Your task to perform on an android device: uninstall "DoorDash - Dasher" Image 0: 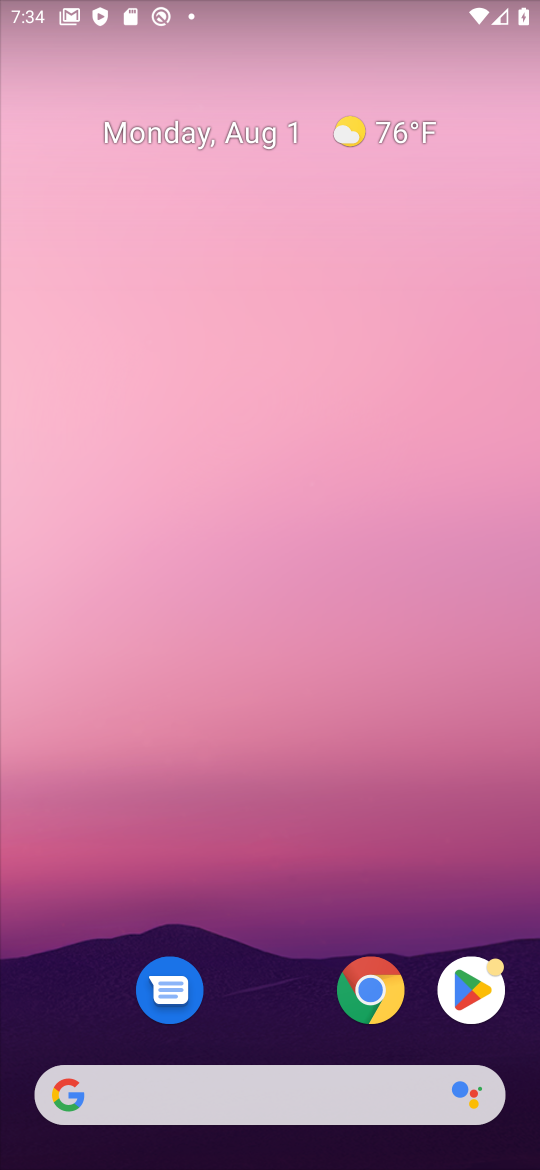
Step 0: press home button
Your task to perform on an android device: uninstall "DoorDash - Dasher" Image 1: 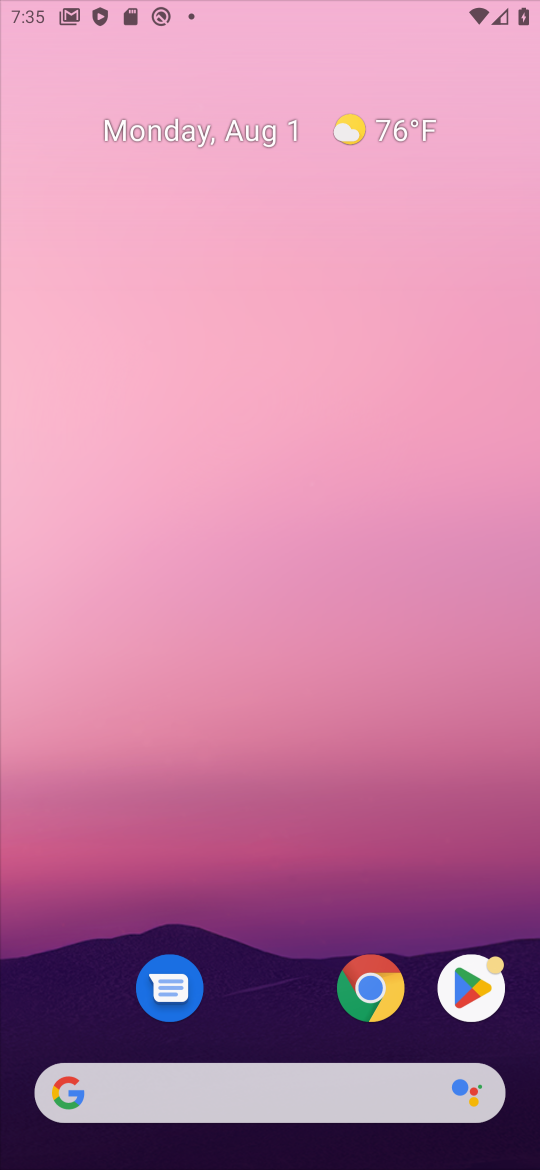
Step 1: click (463, 996)
Your task to perform on an android device: uninstall "DoorDash - Dasher" Image 2: 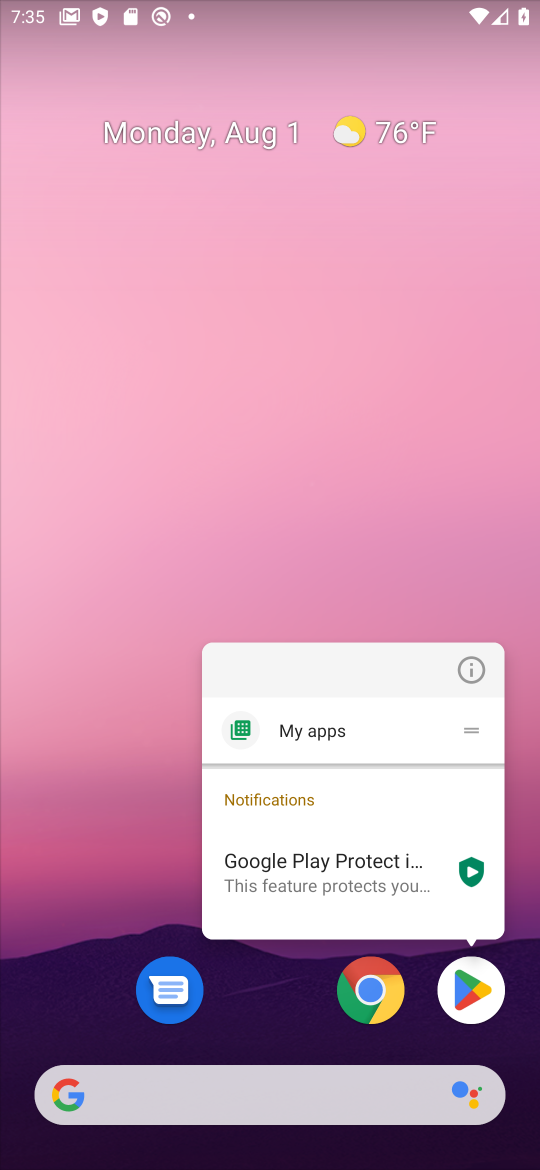
Step 2: click (470, 1004)
Your task to perform on an android device: uninstall "DoorDash - Dasher" Image 3: 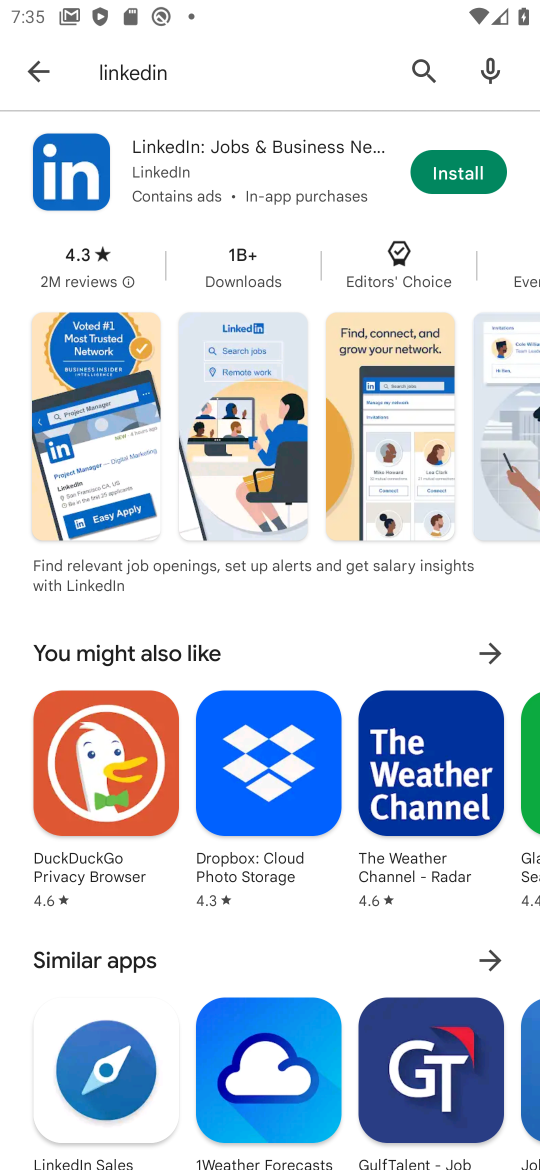
Step 3: click (409, 82)
Your task to perform on an android device: uninstall "DoorDash - Dasher" Image 4: 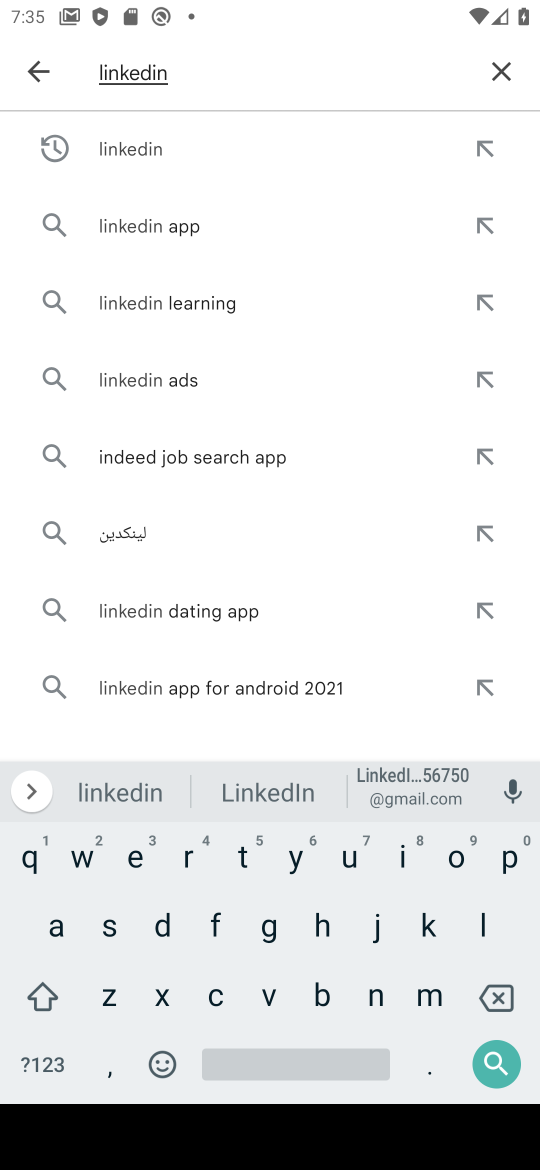
Step 4: click (494, 81)
Your task to perform on an android device: uninstall "DoorDash - Dasher" Image 5: 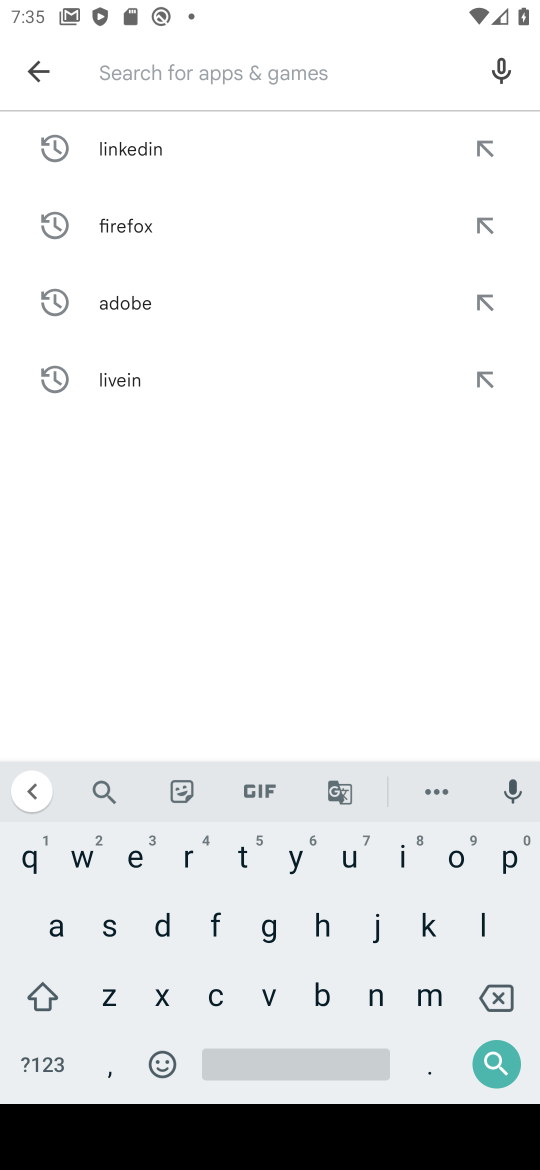
Step 5: click (161, 918)
Your task to perform on an android device: uninstall "DoorDash - Dasher" Image 6: 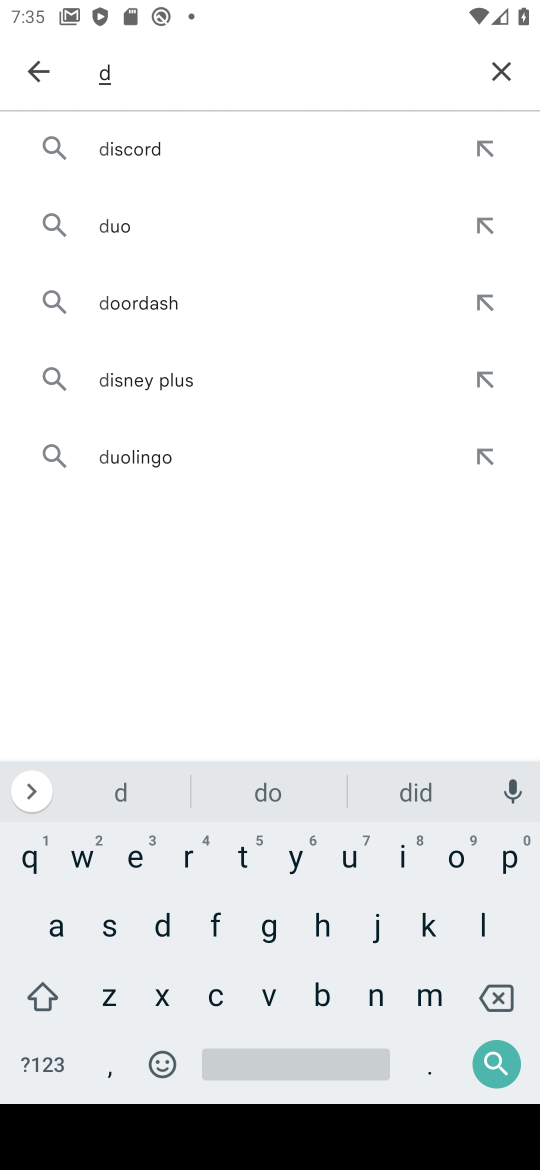
Step 6: click (159, 307)
Your task to perform on an android device: uninstall "DoorDash - Dasher" Image 7: 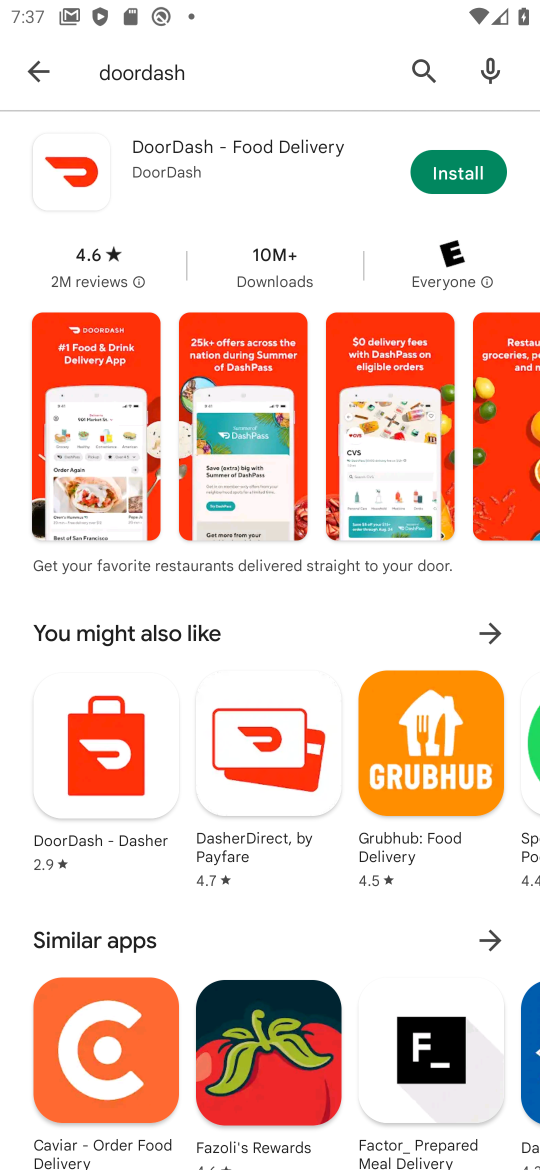
Step 7: task complete